Your task to perform on an android device: Open calendar and show me the second week of next month Image 0: 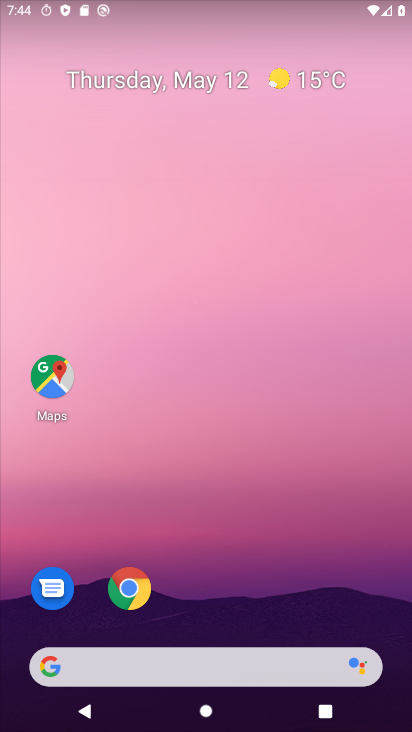
Step 0: drag from (238, 607) to (271, 236)
Your task to perform on an android device: Open calendar and show me the second week of next month Image 1: 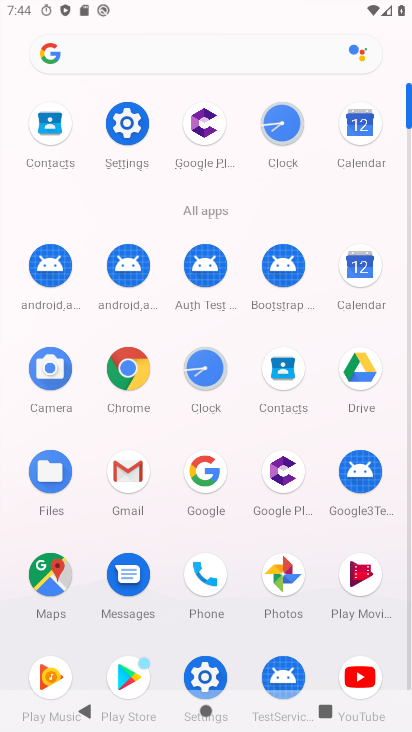
Step 1: click (352, 258)
Your task to perform on an android device: Open calendar and show me the second week of next month Image 2: 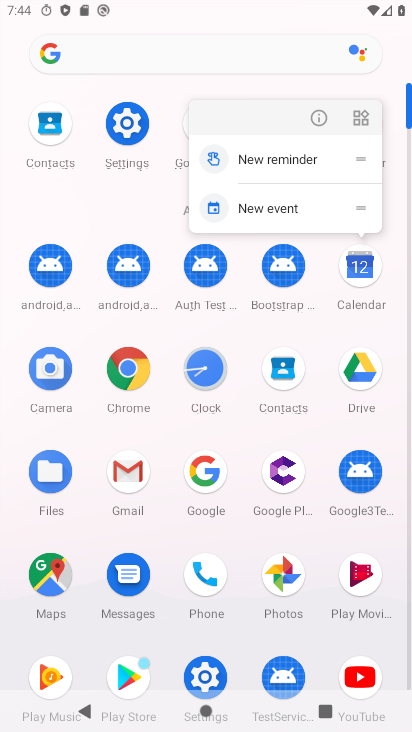
Step 2: click (362, 271)
Your task to perform on an android device: Open calendar and show me the second week of next month Image 3: 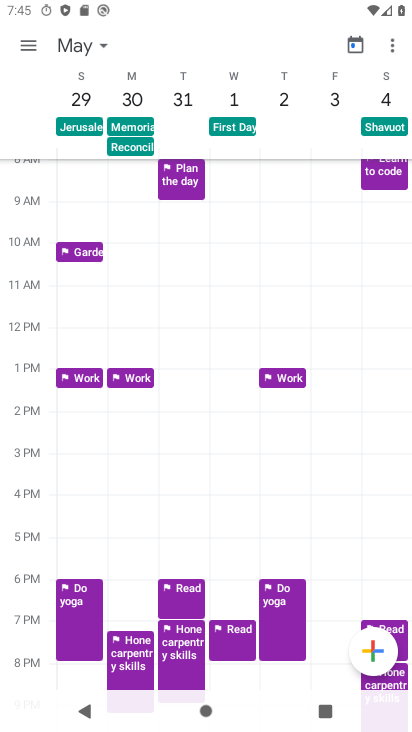
Step 3: click (100, 49)
Your task to perform on an android device: Open calendar and show me the second week of next month Image 4: 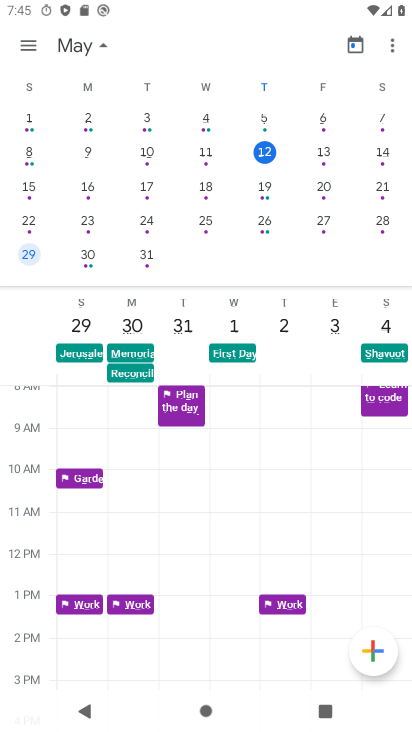
Step 4: drag from (398, 162) to (34, 180)
Your task to perform on an android device: Open calendar and show me the second week of next month Image 5: 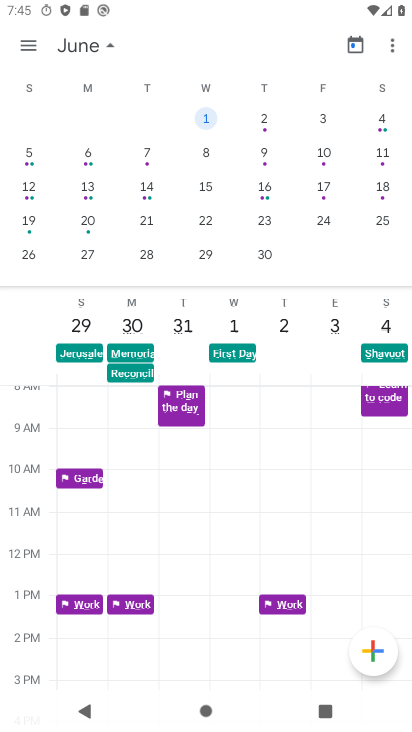
Step 5: click (205, 160)
Your task to perform on an android device: Open calendar and show me the second week of next month Image 6: 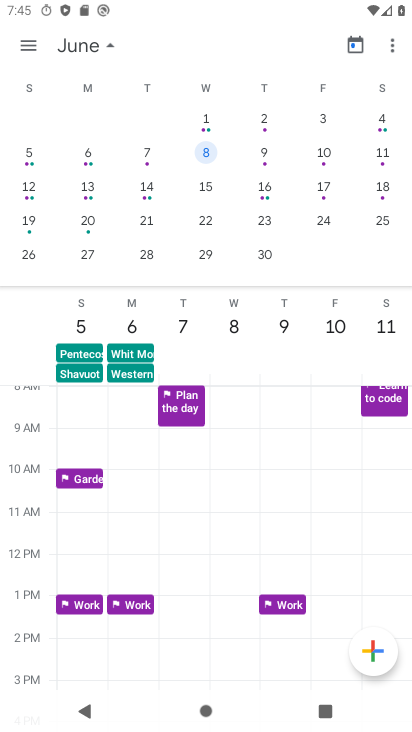
Step 6: click (17, 44)
Your task to perform on an android device: Open calendar and show me the second week of next month Image 7: 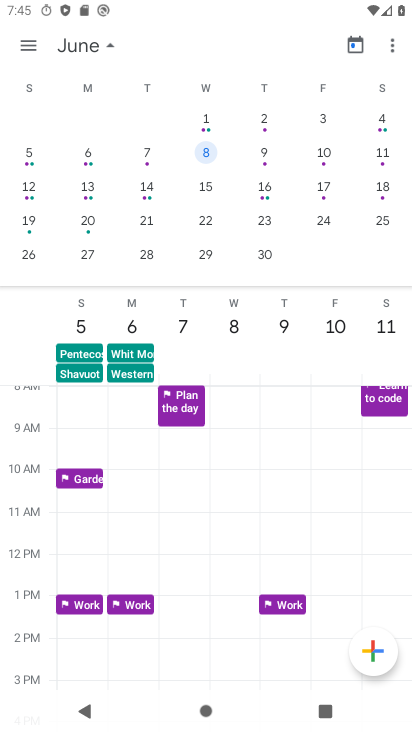
Step 7: click (24, 41)
Your task to perform on an android device: Open calendar and show me the second week of next month Image 8: 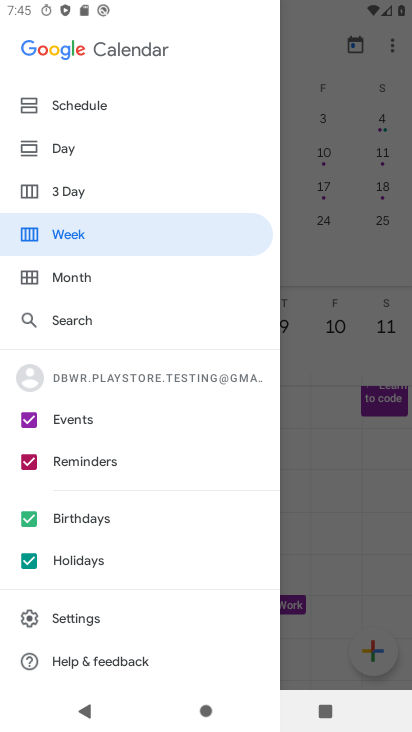
Step 8: click (94, 231)
Your task to perform on an android device: Open calendar and show me the second week of next month Image 9: 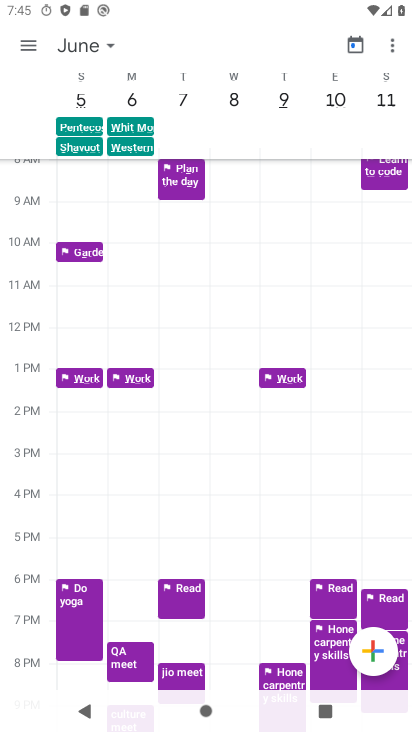
Step 9: task complete